Your task to perform on an android device: open chrome and create a bookmark for the current page Image 0: 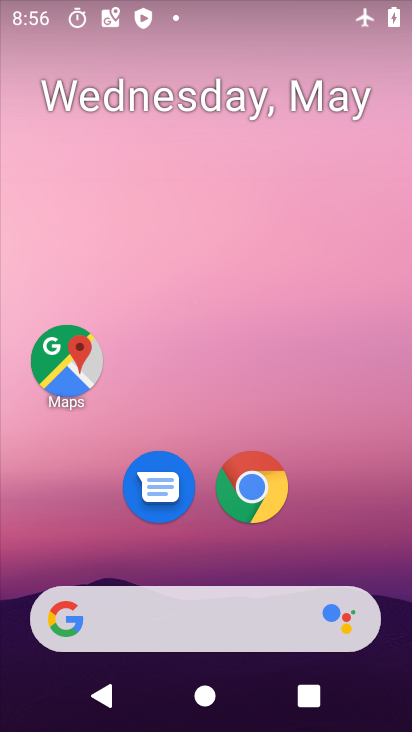
Step 0: click (234, 501)
Your task to perform on an android device: open chrome and create a bookmark for the current page Image 1: 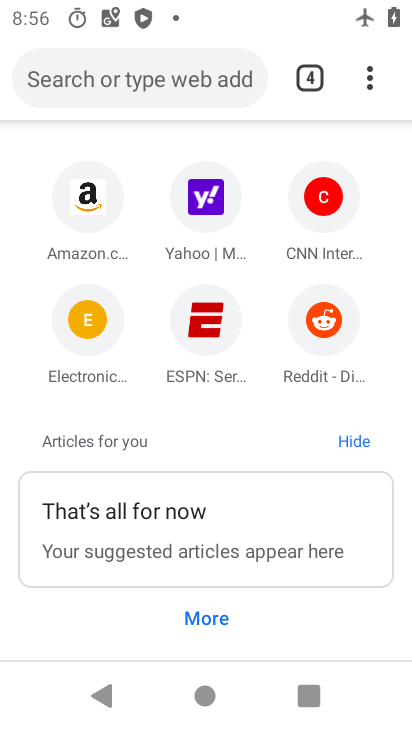
Step 1: click (321, 74)
Your task to perform on an android device: open chrome and create a bookmark for the current page Image 2: 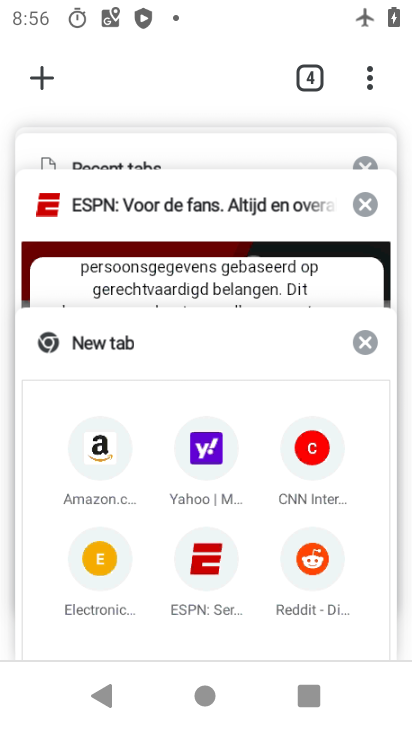
Step 2: click (189, 209)
Your task to perform on an android device: open chrome and create a bookmark for the current page Image 3: 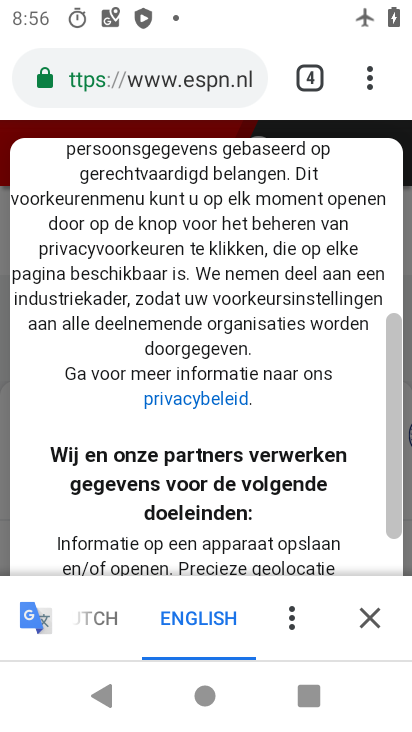
Step 3: click (372, 73)
Your task to perform on an android device: open chrome and create a bookmark for the current page Image 4: 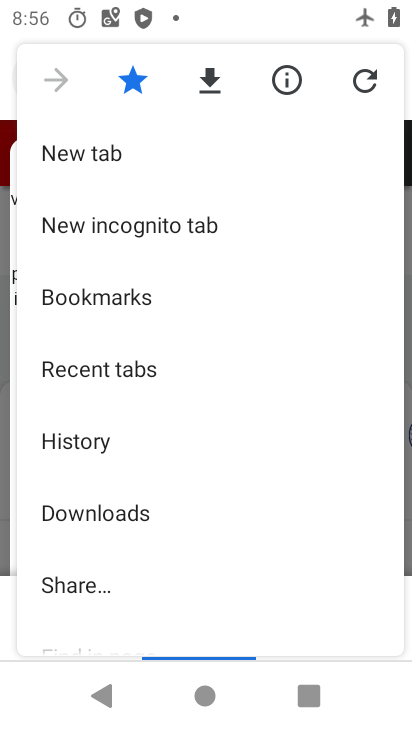
Step 4: click (144, 79)
Your task to perform on an android device: open chrome and create a bookmark for the current page Image 5: 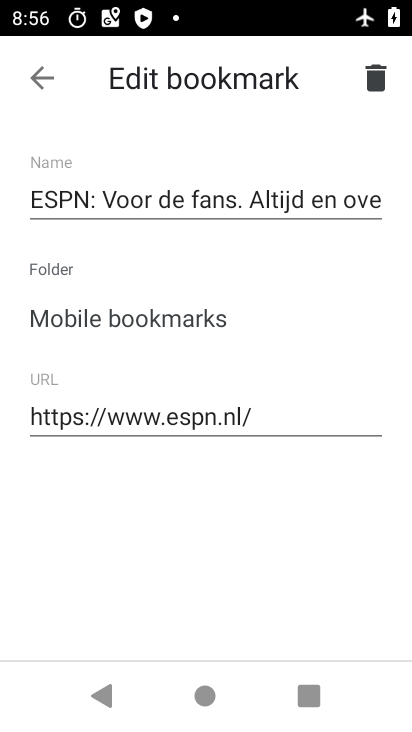
Step 5: task complete